Your task to perform on an android device: open a bookmark in the chrome app Image 0: 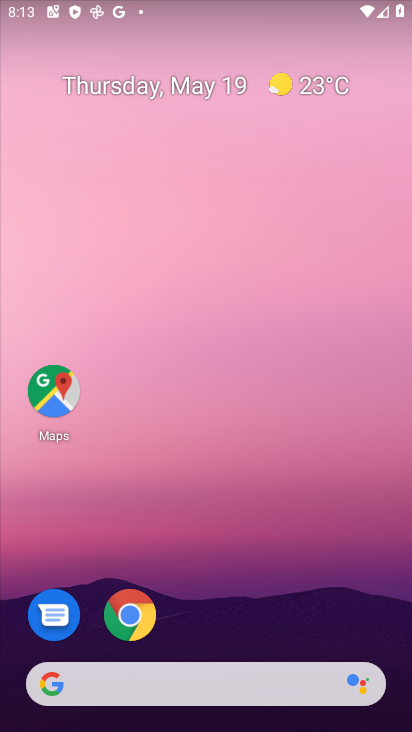
Step 0: drag from (334, 619) to (252, 71)
Your task to perform on an android device: open a bookmark in the chrome app Image 1: 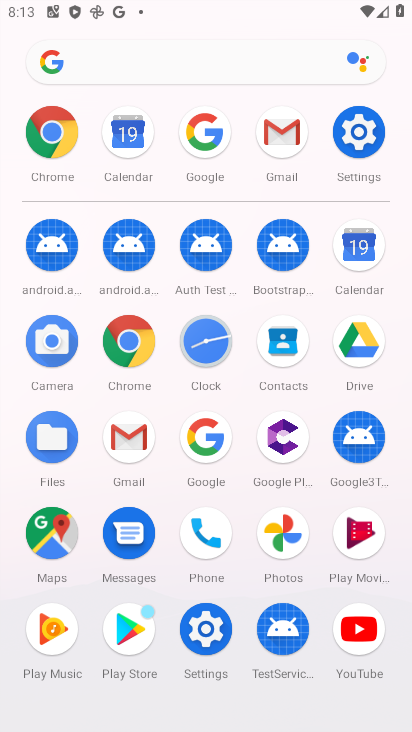
Step 1: click (55, 139)
Your task to perform on an android device: open a bookmark in the chrome app Image 2: 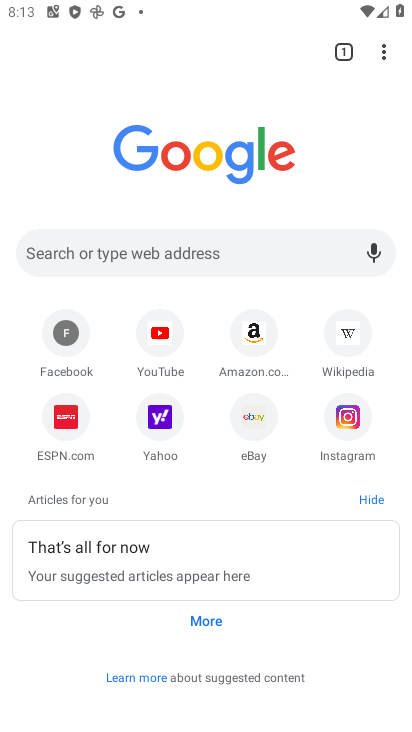
Step 2: click (383, 49)
Your task to perform on an android device: open a bookmark in the chrome app Image 3: 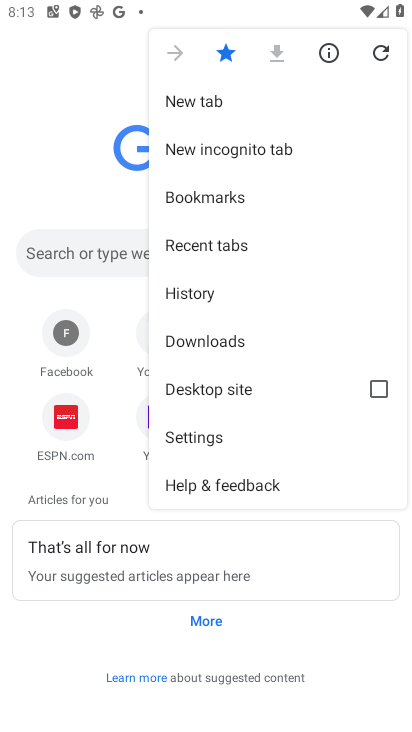
Step 3: click (263, 205)
Your task to perform on an android device: open a bookmark in the chrome app Image 4: 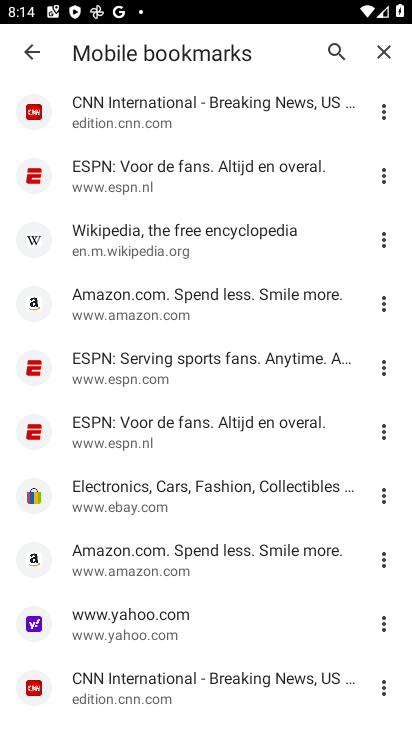
Step 4: task complete